Your task to perform on an android device: check google app version Image 0: 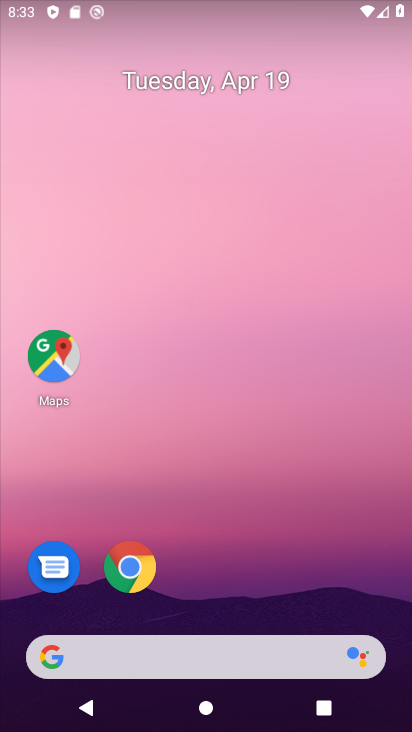
Step 0: drag from (227, 560) to (239, 31)
Your task to perform on an android device: check google app version Image 1: 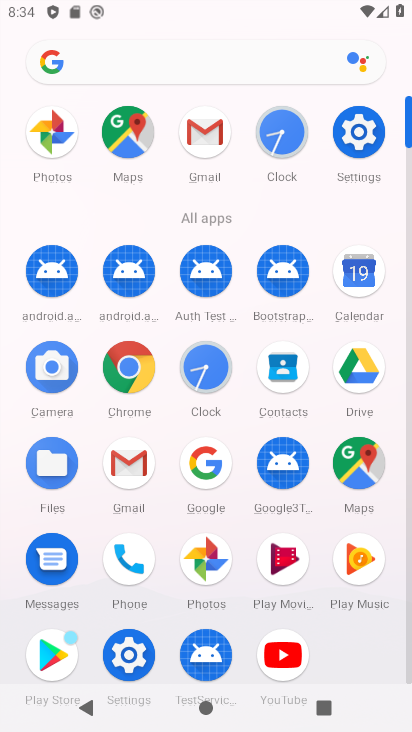
Step 1: click (408, 601)
Your task to perform on an android device: check google app version Image 2: 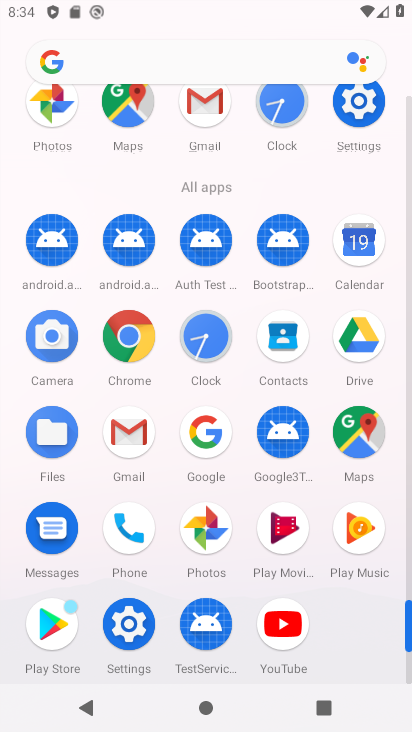
Step 2: drag from (358, 649) to (352, 255)
Your task to perform on an android device: check google app version Image 3: 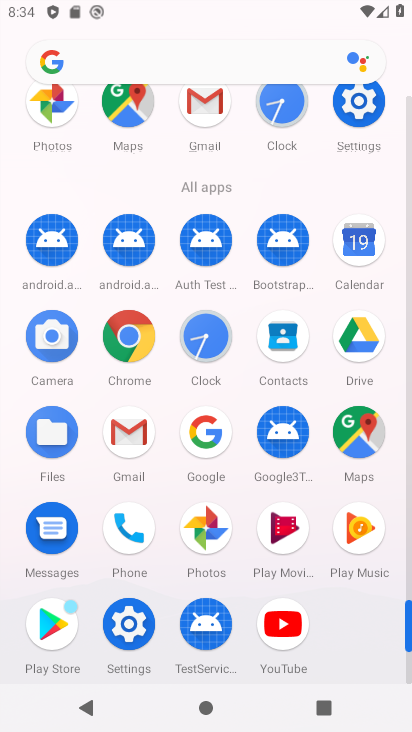
Step 3: click (193, 447)
Your task to perform on an android device: check google app version Image 4: 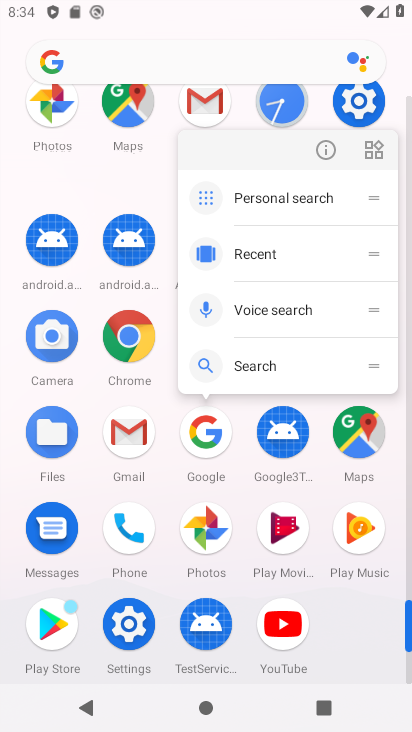
Step 4: click (325, 148)
Your task to perform on an android device: check google app version Image 5: 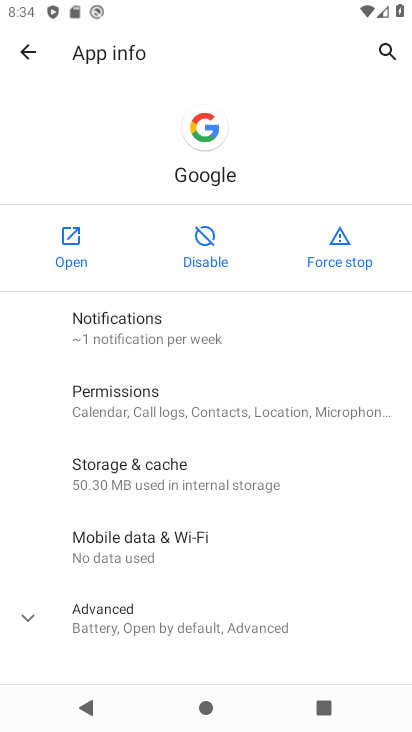
Step 5: click (146, 631)
Your task to perform on an android device: check google app version Image 6: 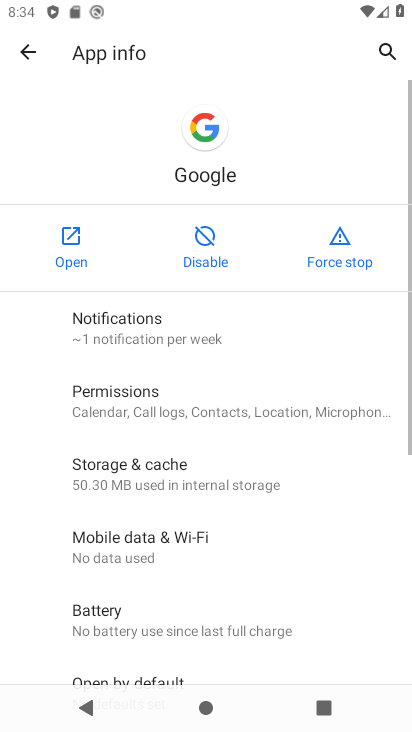
Step 6: task complete